Your task to perform on an android device: open device folders in google photos Image 0: 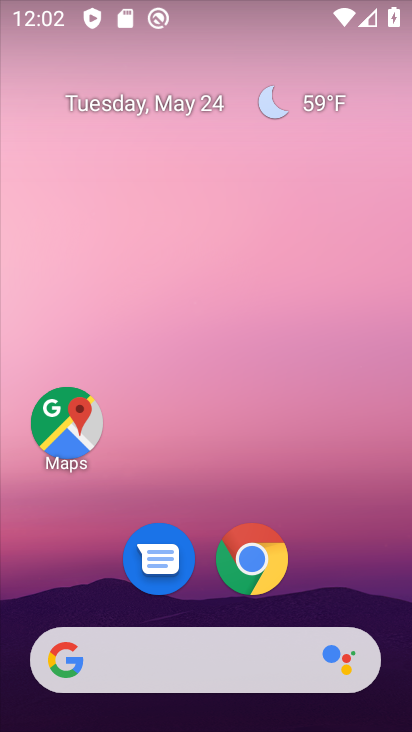
Step 0: drag from (404, 702) to (321, 188)
Your task to perform on an android device: open device folders in google photos Image 1: 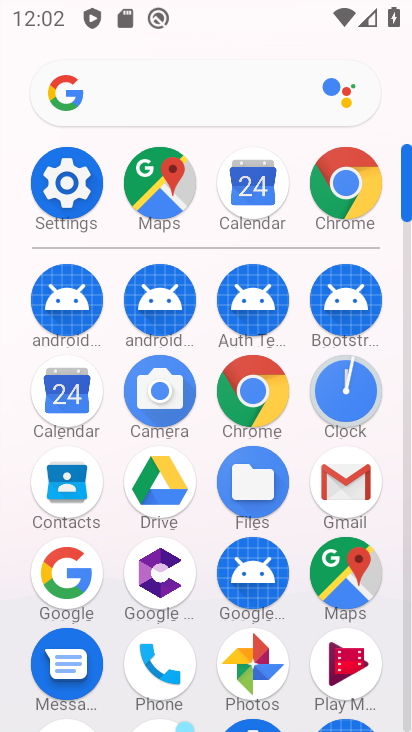
Step 1: click (242, 650)
Your task to perform on an android device: open device folders in google photos Image 2: 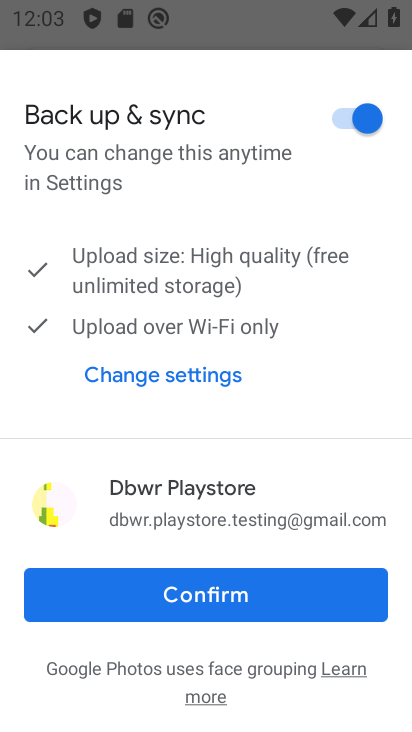
Step 2: press home button
Your task to perform on an android device: open device folders in google photos Image 3: 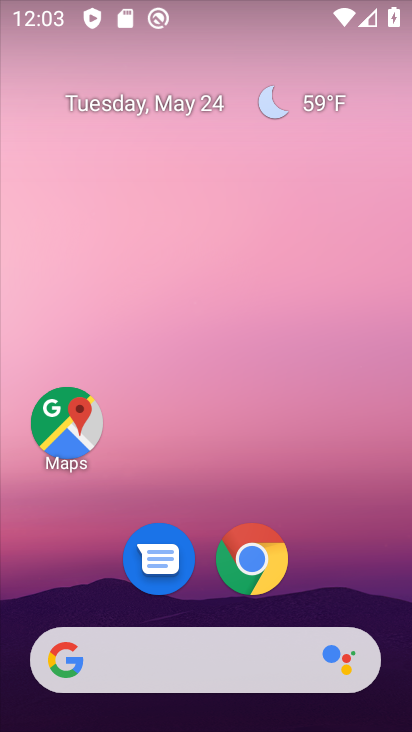
Step 3: drag from (382, 710) to (350, 257)
Your task to perform on an android device: open device folders in google photos Image 4: 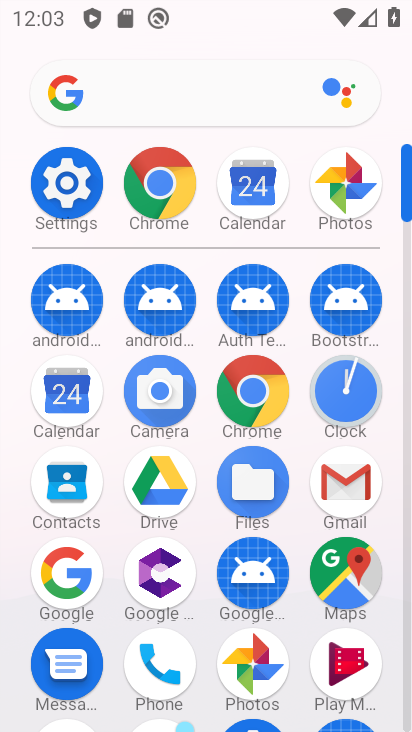
Step 4: click (355, 176)
Your task to perform on an android device: open device folders in google photos Image 5: 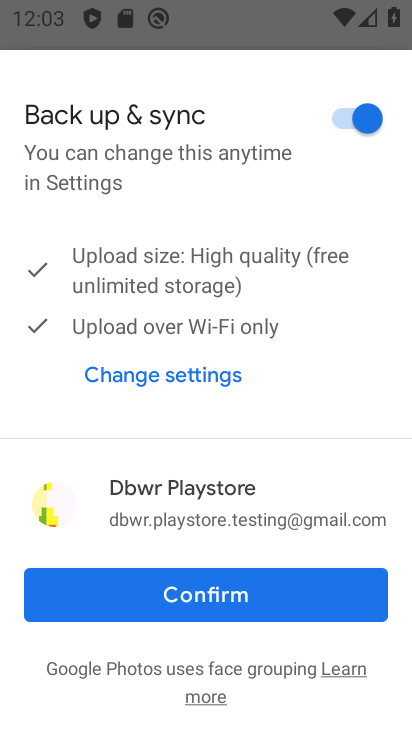
Step 5: click (291, 598)
Your task to perform on an android device: open device folders in google photos Image 6: 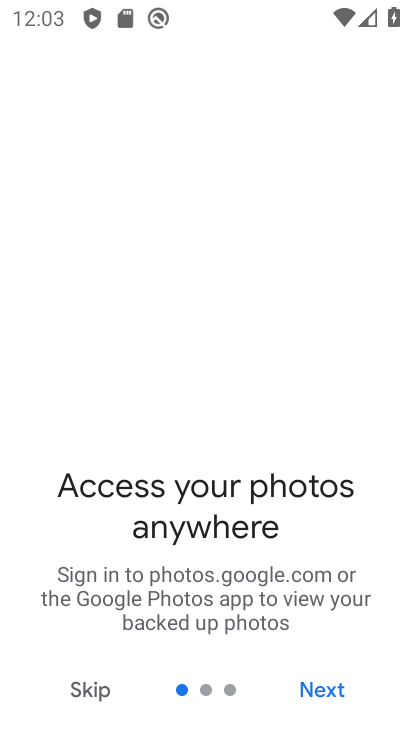
Step 6: click (307, 696)
Your task to perform on an android device: open device folders in google photos Image 7: 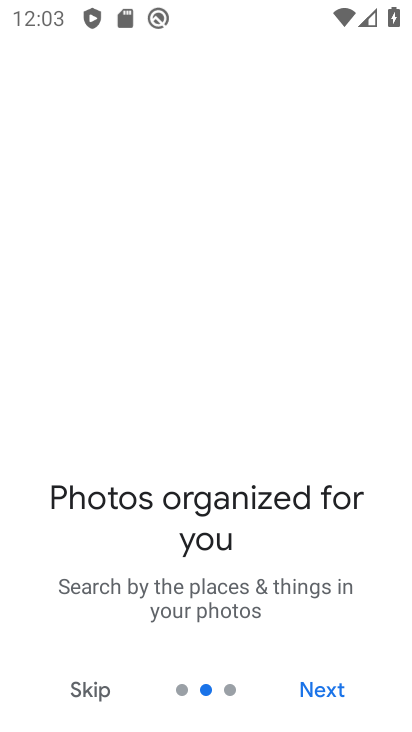
Step 7: click (307, 692)
Your task to perform on an android device: open device folders in google photos Image 8: 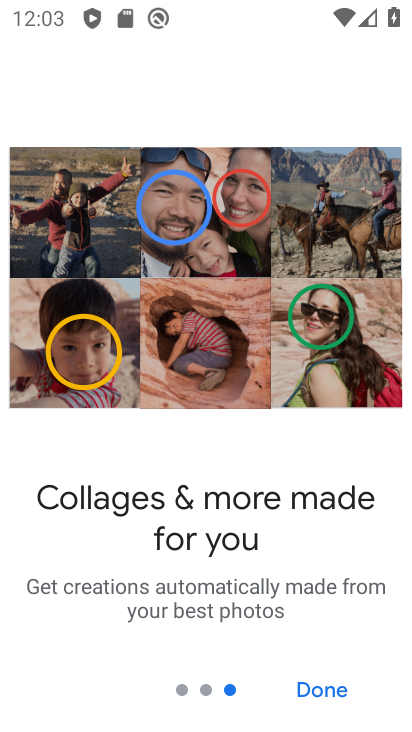
Step 8: click (307, 691)
Your task to perform on an android device: open device folders in google photos Image 9: 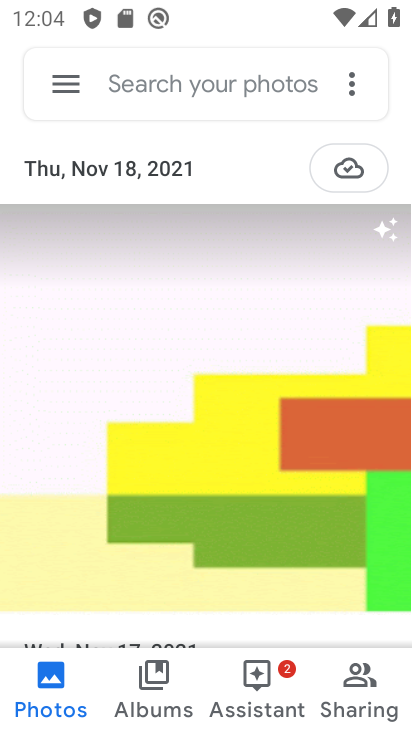
Step 9: click (63, 87)
Your task to perform on an android device: open device folders in google photos Image 10: 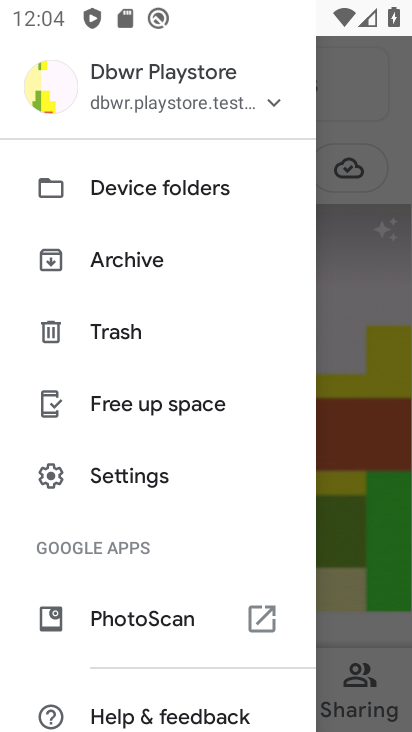
Step 10: click (121, 180)
Your task to perform on an android device: open device folders in google photos Image 11: 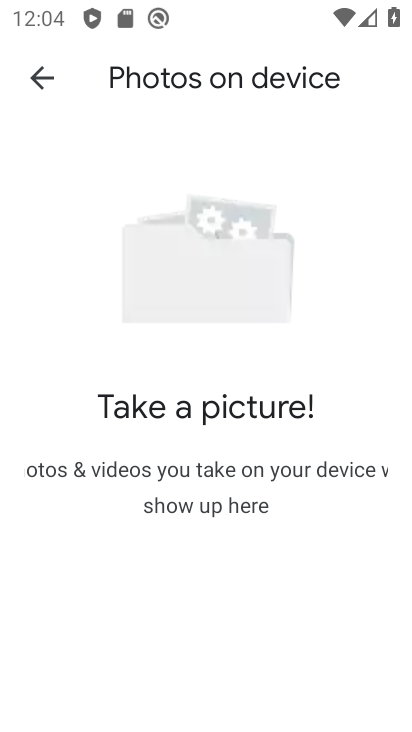
Step 11: task complete